Your task to perform on an android device: turn off location Image 0: 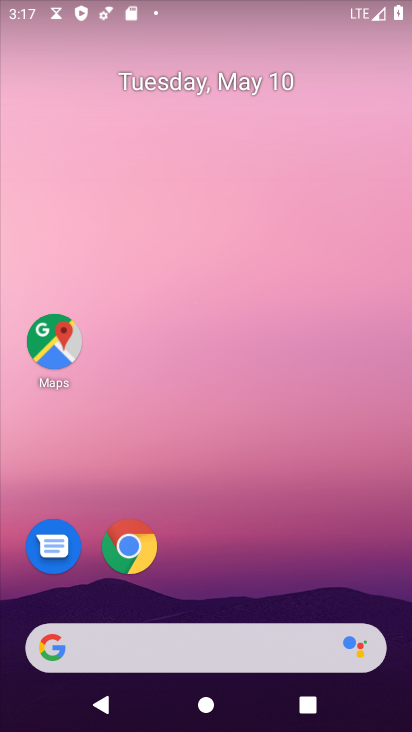
Step 0: drag from (225, 586) to (266, 107)
Your task to perform on an android device: turn off location Image 1: 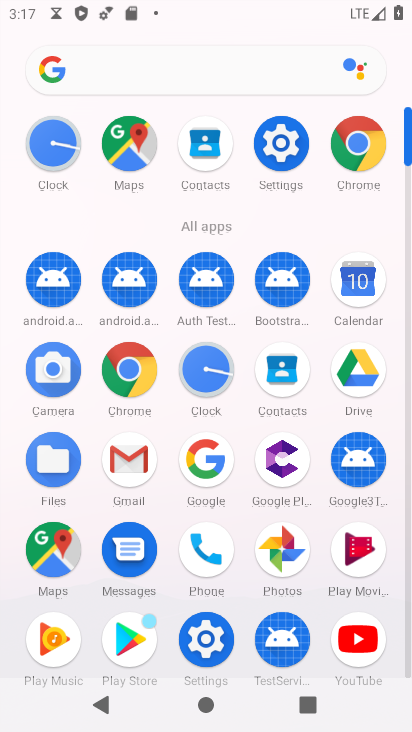
Step 1: click (267, 156)
Your task to perform on an android device: turn off location Image 2: 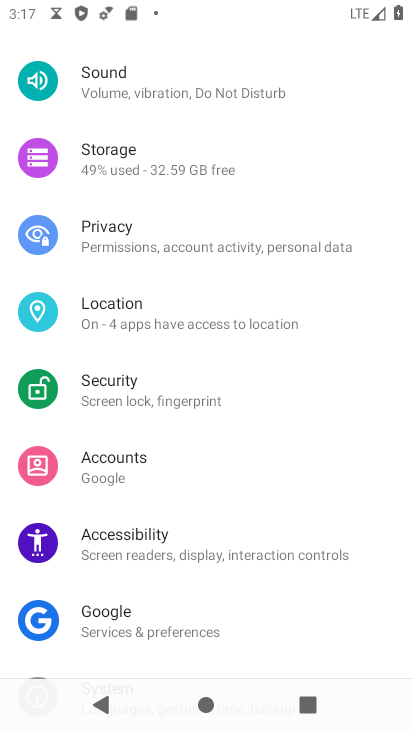
Step 2: click (143, 318)
Your task to perform on an android device: turn off location Image 3: 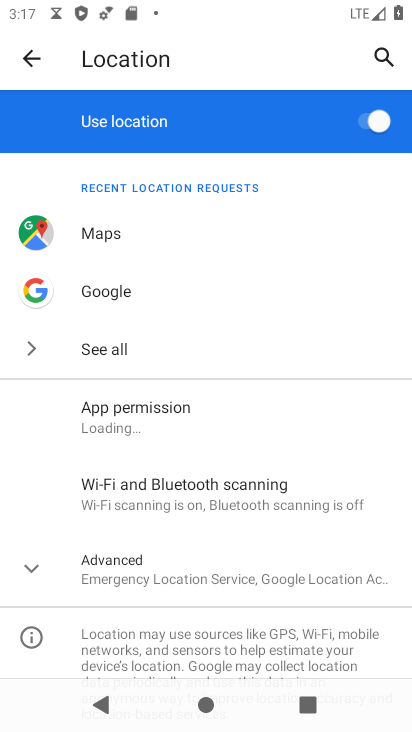
Step 3: click (352, 138)
Your task to perform on an android device: turn off location Image 4: 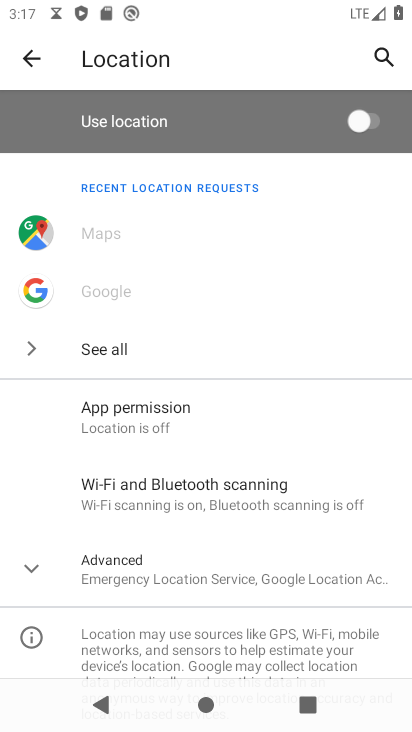
Step 4: task complete